Your task to perform on an android device: Open location settings Image 0: 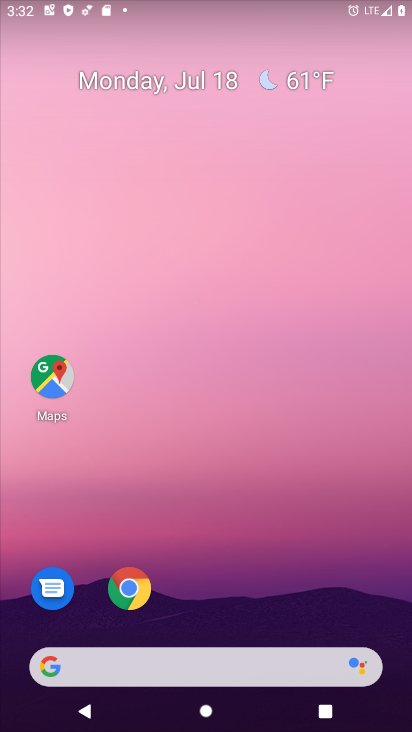
Step 0: drag from (258, 563) to (334, 42)
Your task to perform on an android device: Open location settings Image 1: 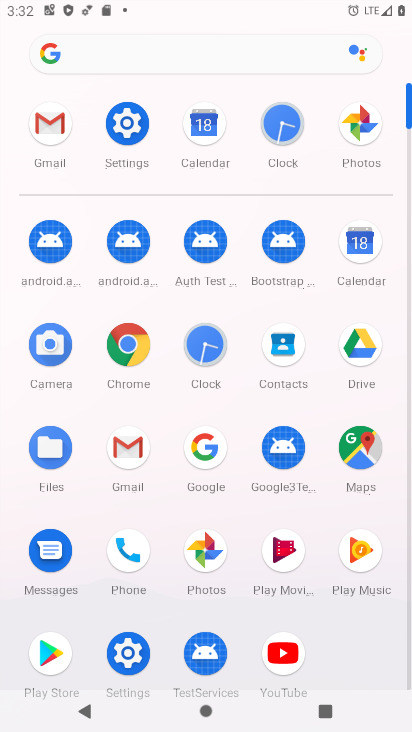
Step 1: click (114, 111)
Your task to perform on an android device: Open location settings Image 2: 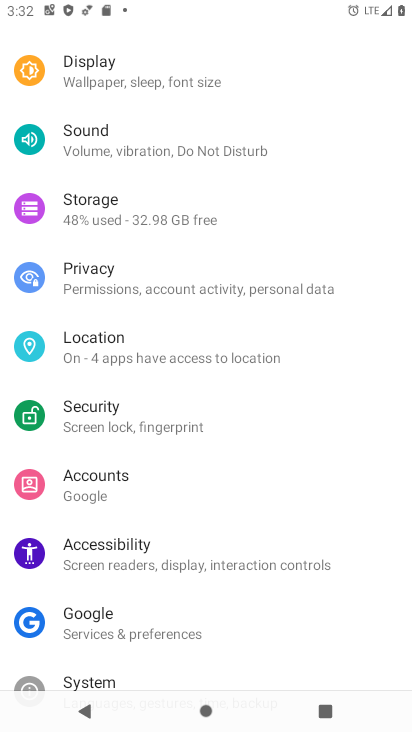
Step 2: click (206, 346)
Your task to perform on an android device: Open location settings Image 3: 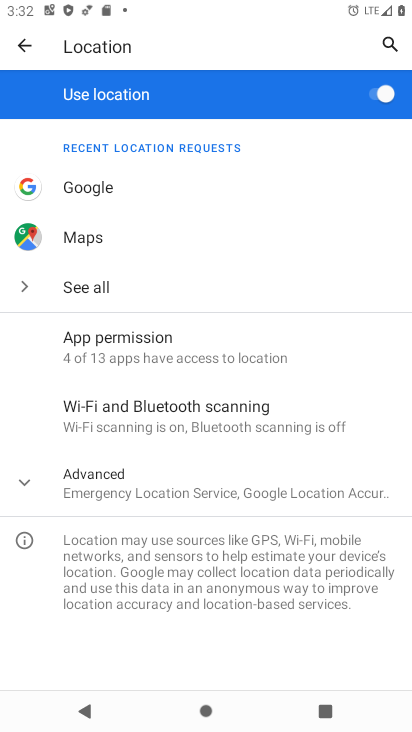
Step 3: task complete